Your task to perform on an android device: change your default location settings in chrome Image 0: 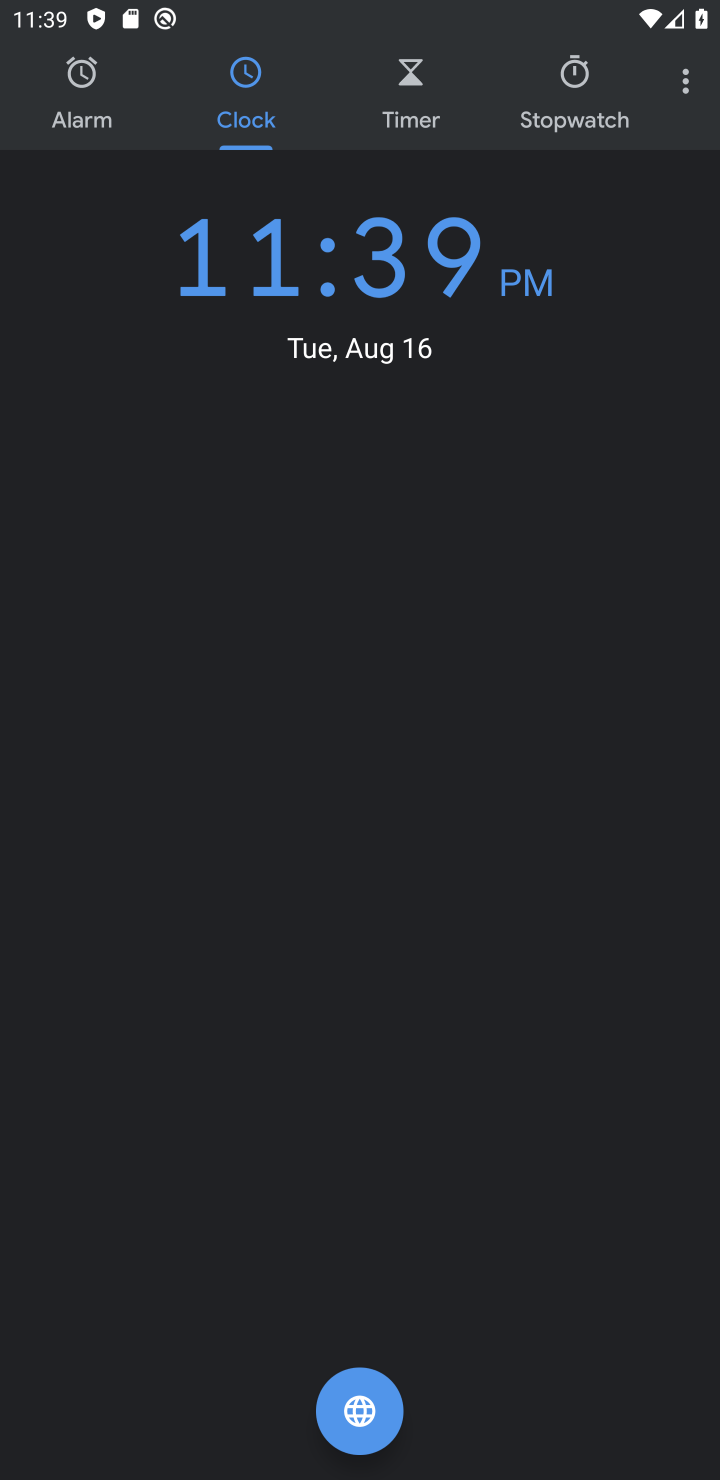
Step 0: press home button
Your task to perform on an android device: change your default location settings in chrome Image 1: 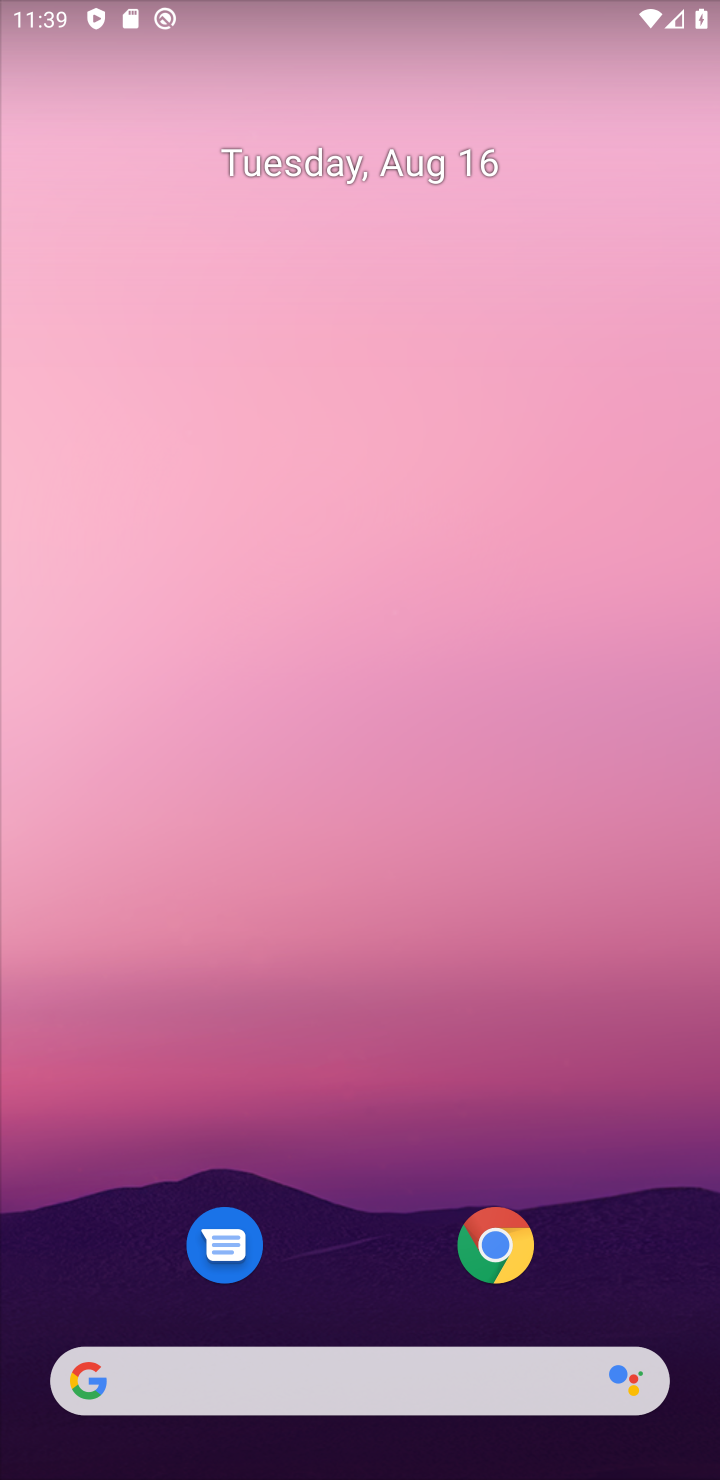
Step 1: click (488, 1227)
Your task to perform on an android device: change your default location settings in chrome Image 2: 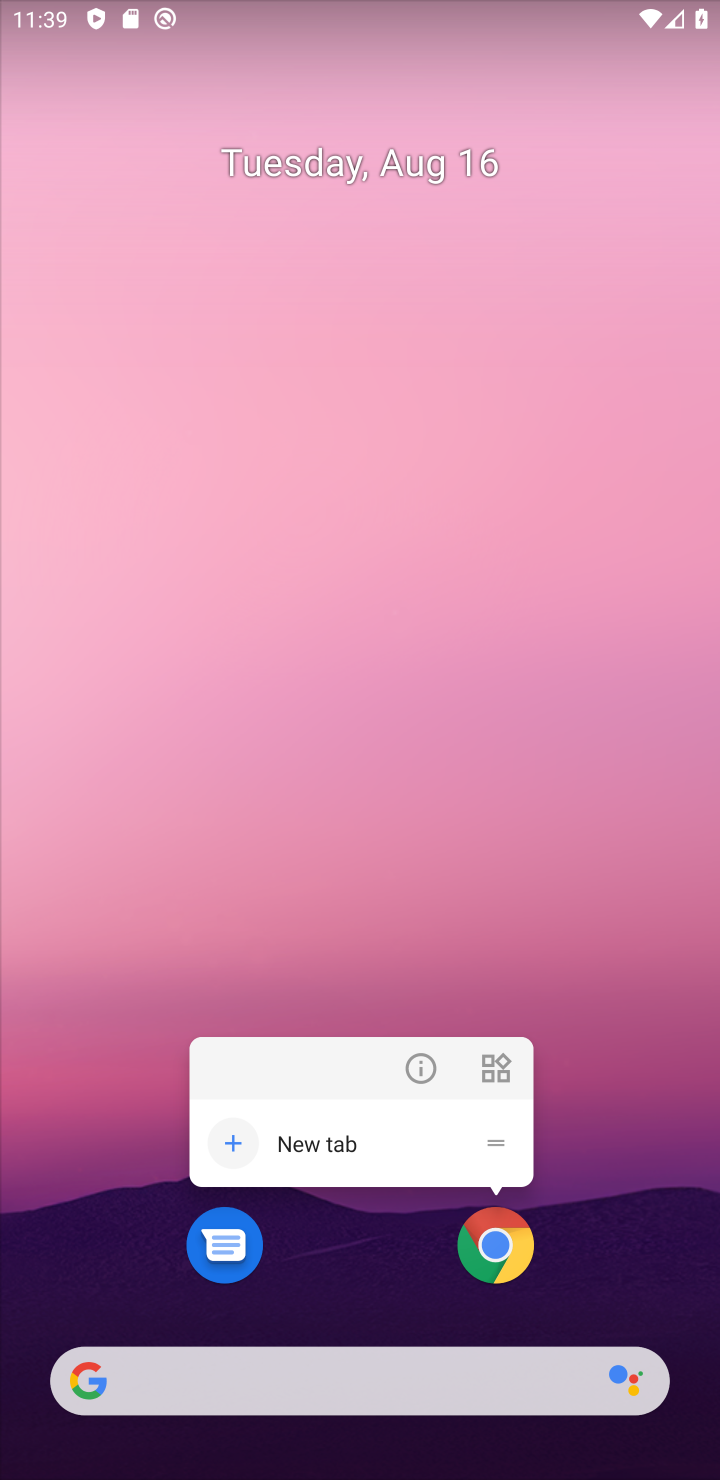
Step 2: click (492, 1245)
Your task to perform on an android device: change your default location settings in chrome Image 3: 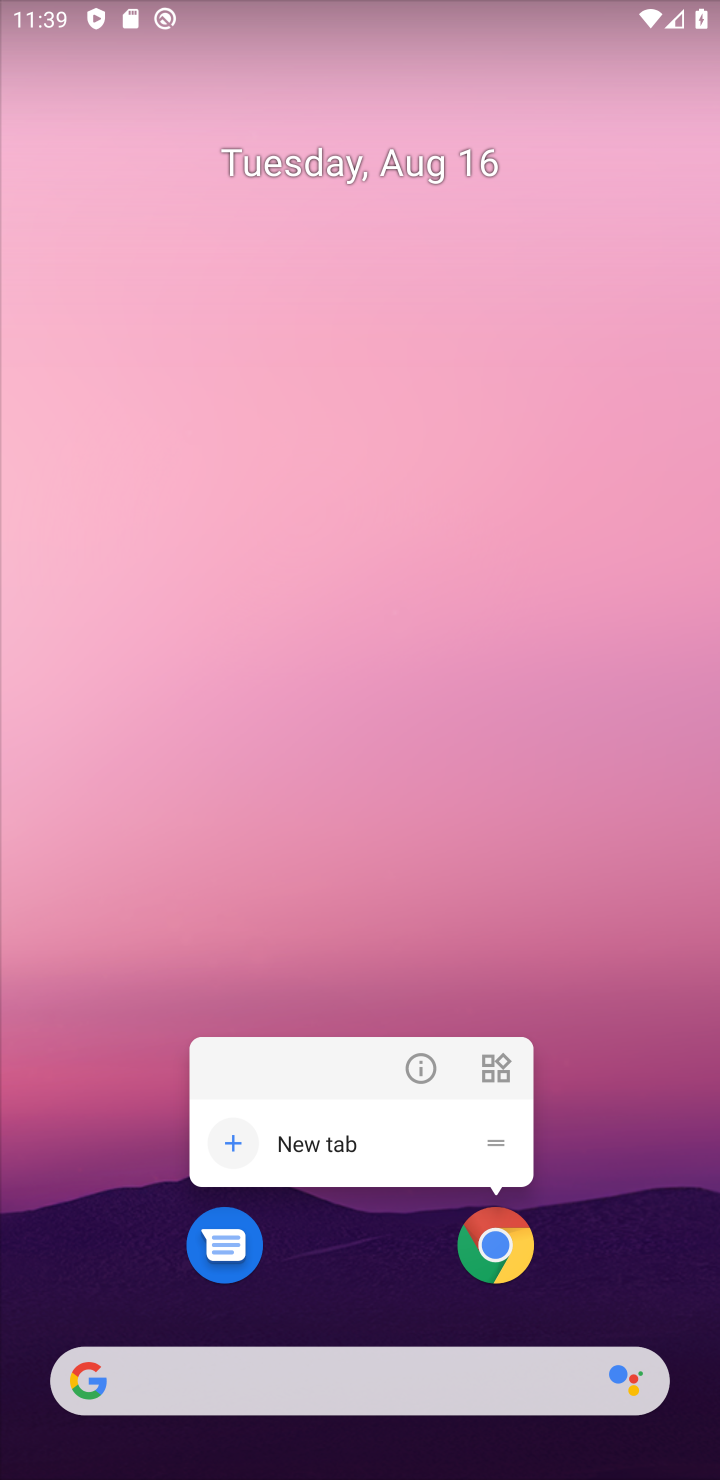
Step 3: click (492, 1245)
Your task to perform on an android device: change your default location settings in chrome Image 4: 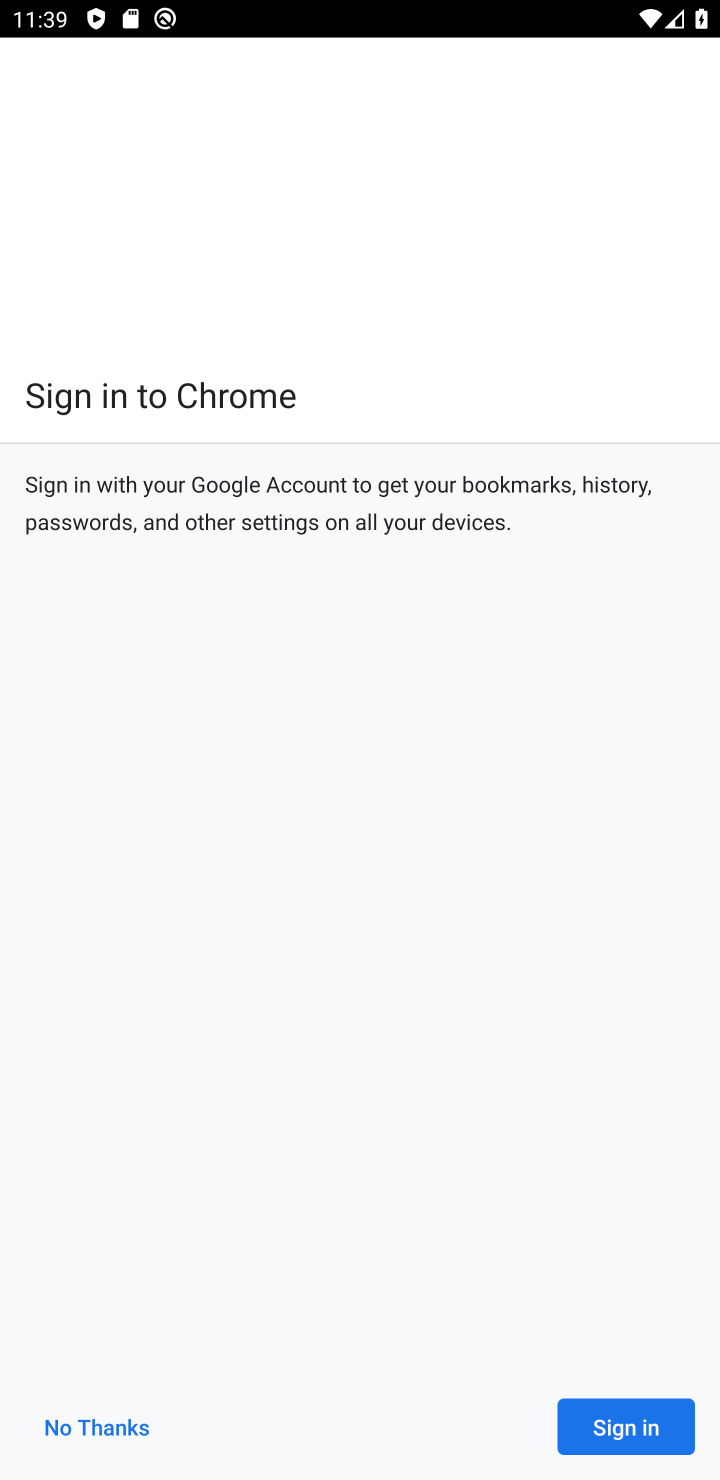
Step 4: click (659, 1426)
Your task to perform on an android device: change your default location settings in chrome Image 5: 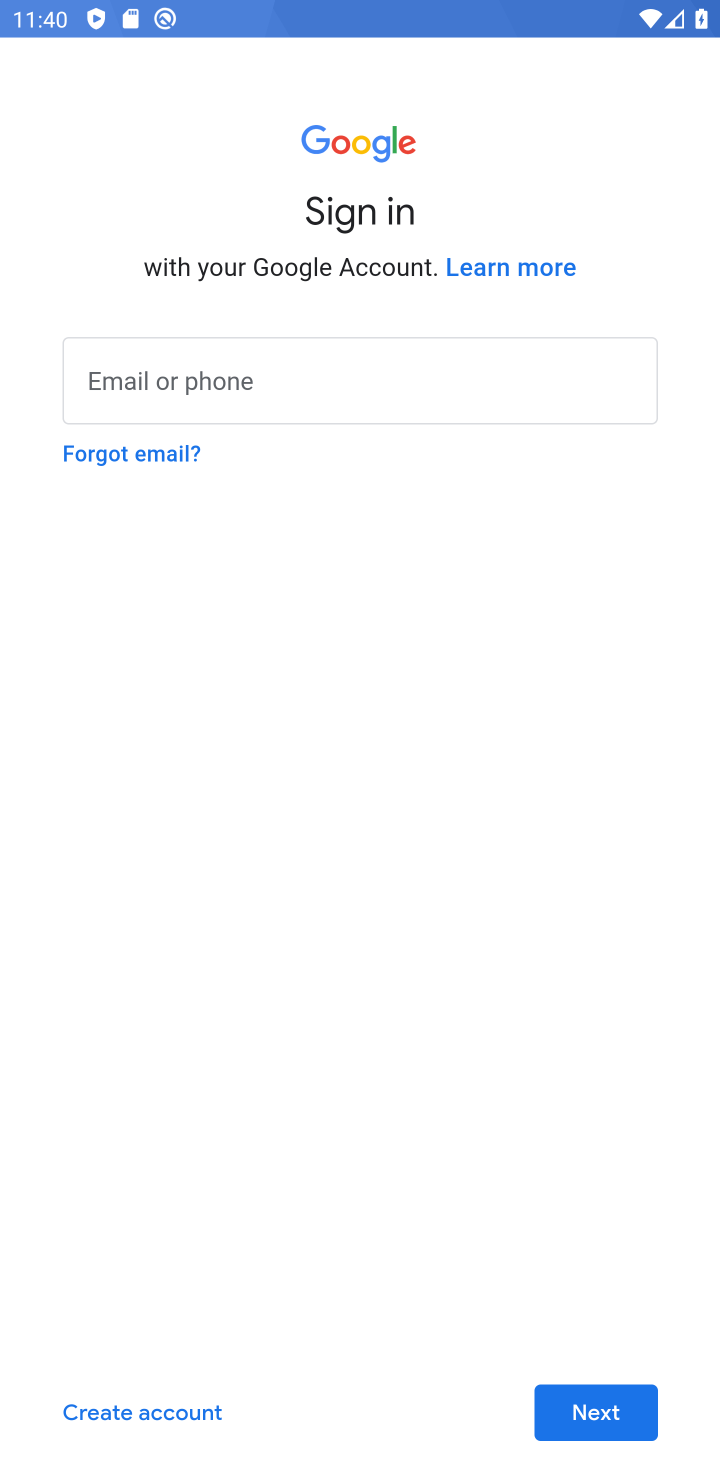
Step 5: task complete